Your task to perform on an android device: empty trash in google photos Image 0: 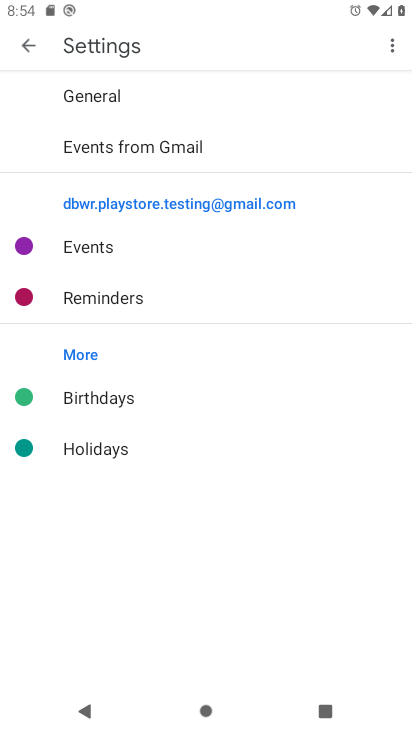
Step 0: press home button
Your task to perform on an android device: empty trash in google photos Image 1: 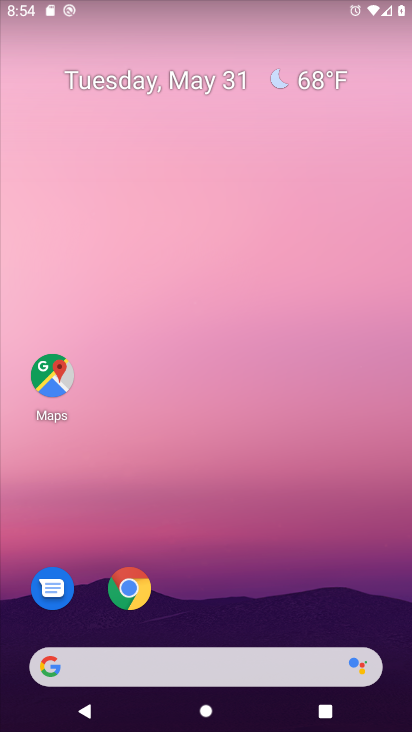
Step 1: drag from (223, 672) to (310, 274)
Your task to perform on an android device: empty trash in google photos Image 2: 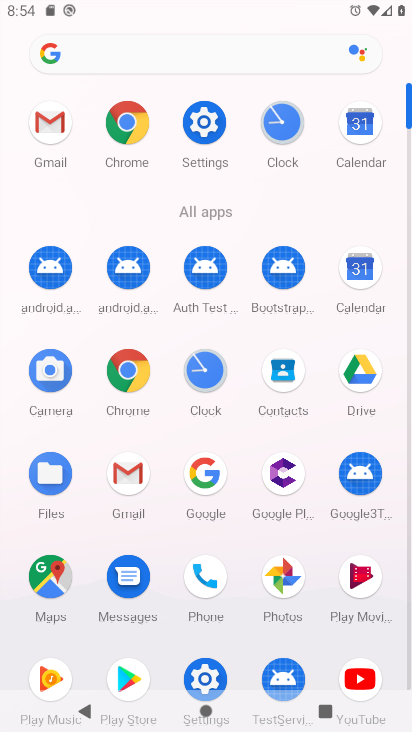
Step 2: click (280, 581)
Your task to perform on an android device: empty trash in google photos Image 3: 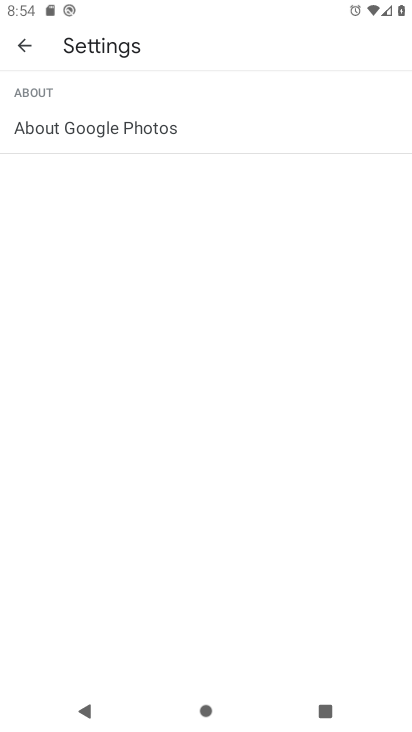
Step 3: click (25, 44)
Your task to perform on an android device: empty trash in google photos Image 4: 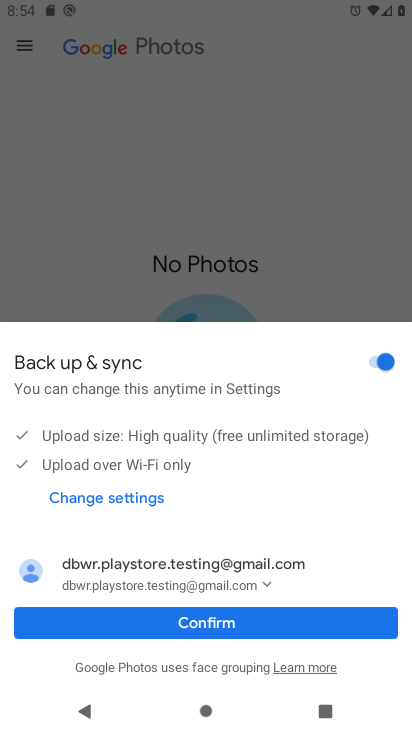
Step 4: click (183, 616)
Your task to perform on an android device: empty trash in google photos Image 5: 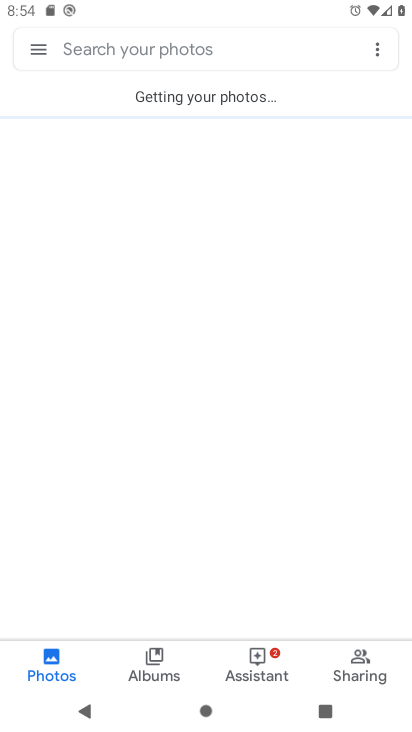
Step 5: click (43, 50)
Your task to perform on an android device: empty trash in google photos Image 6: 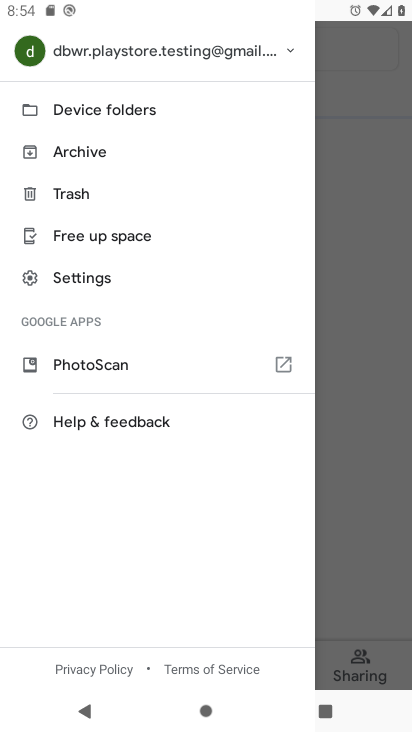
Step 6: click (75, 194)
Your task to perform on an android device: empty trash in google photos Image 7: 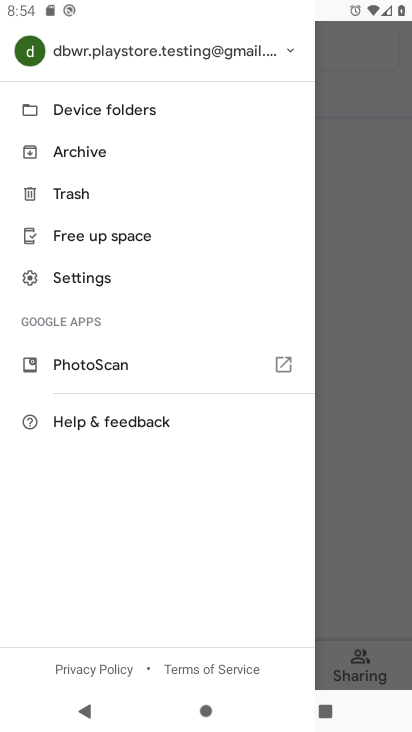
Step 7: click (72, 194)
Your task to perform on an android device: empty trash in google photos Image 8: 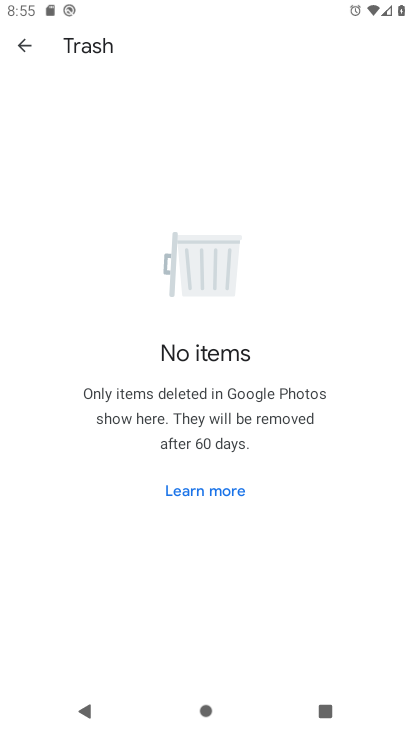
Step 8: task complete